Your task to perform on an android device: check storage Image 0: 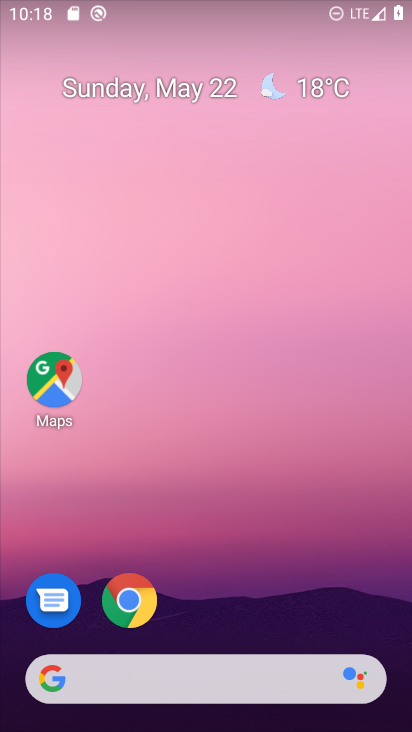
Step 0: drag from (373, 597) to (200, 41)
Your task to perform on an android device: check storage Image 1: 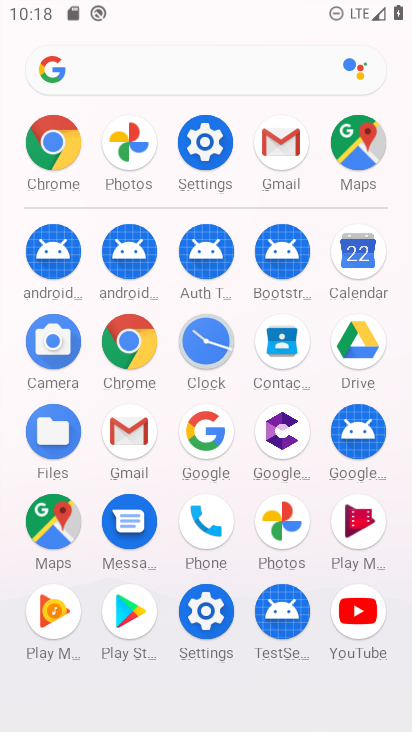
Step 1: click (201, 601)
Your task to perform on an android device: check storage Image 2: 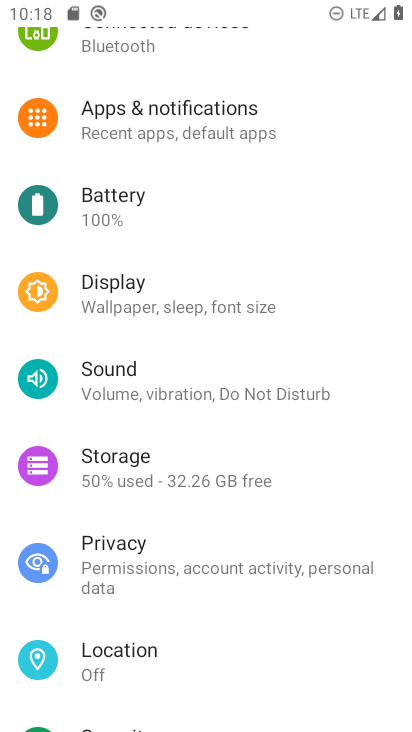
Step 2: drag from (201, 601) to (241, 431)
Your task to perform on an android device: check storage Image 3: 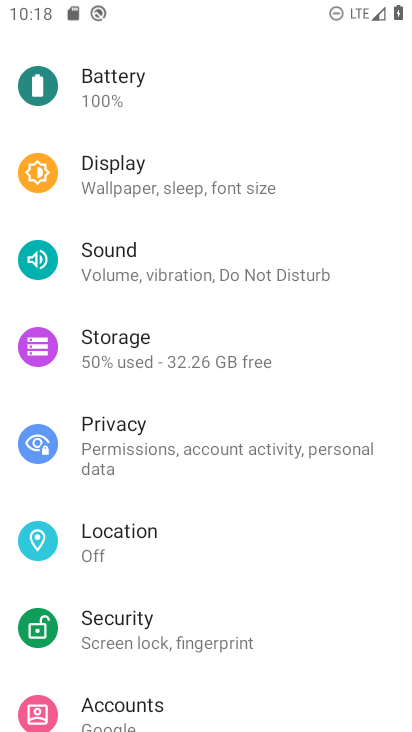
Step 3: click (163, 334)
Your task to perform on an android device: check storage Image 4: 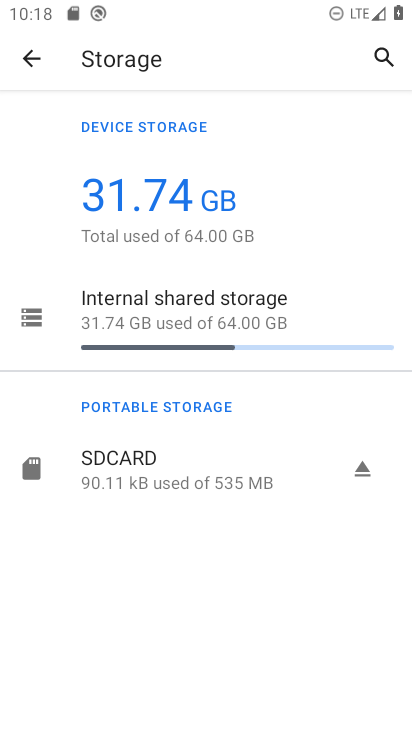
Step 4: click (179, 319)
Your task to perform on an android device: check storage Image 5: 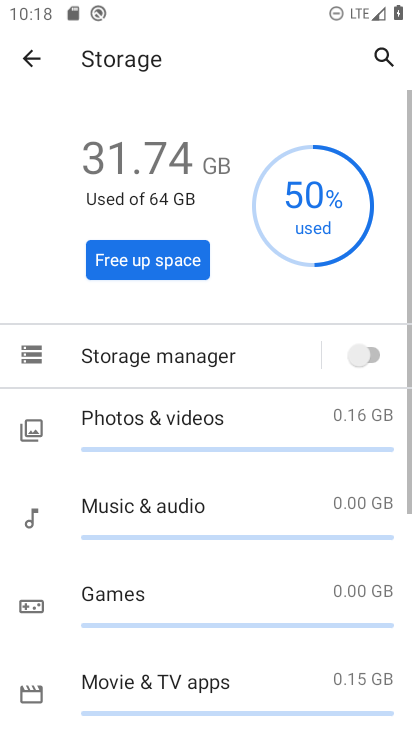
Step 5: task complete